Your task to perform on an android device: Set an alarm for 2pm Image 0: 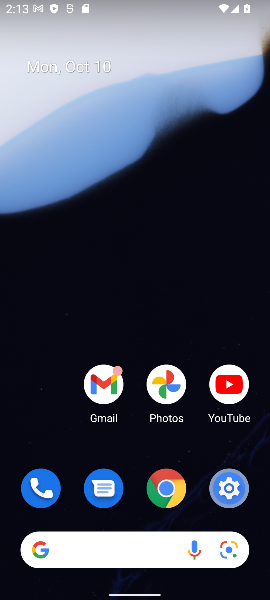
Step 0: drag from (145, 526) to (135, 48)
Your task to perform on an android device: Set an alarm for 2pm Image 1: 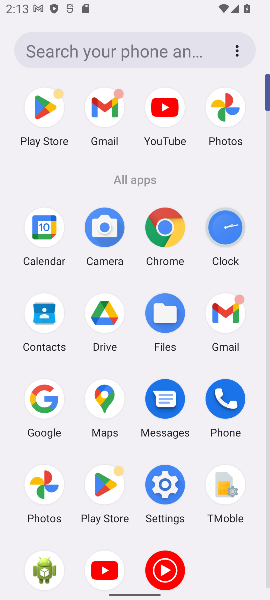
Step 1: click (225, 236)
Your task to perform on an android device: Set an alarm for 2pm Image 2: 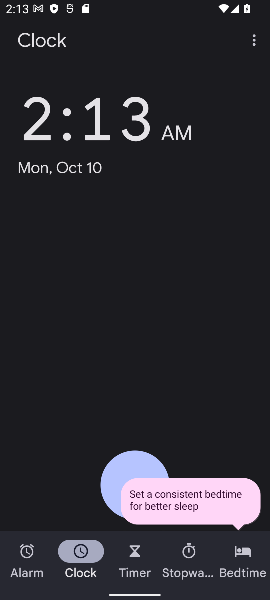
Step 2: click (22, 566)
Your task to perform on an android device: Set an alarm for 2pm Image 3: 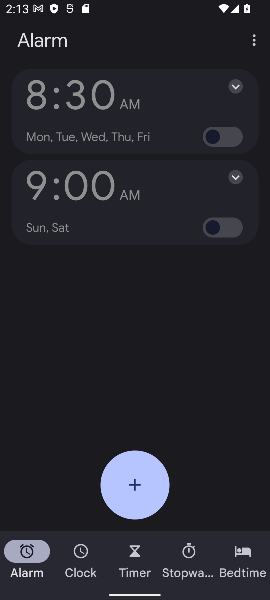
Step 3: click (145, 482)
Your task to perform on an android device: Set an alarm for 2pm Image 4: 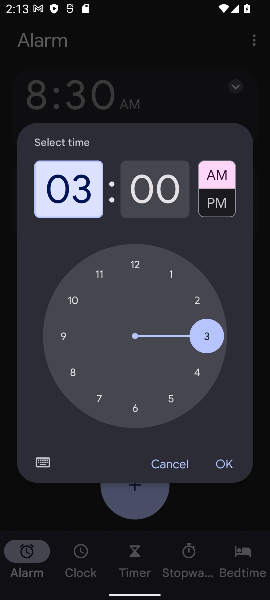
Step 4: click (198, 305)
Your task to perform on an android device: Set an alarm for 2pm Image 5: 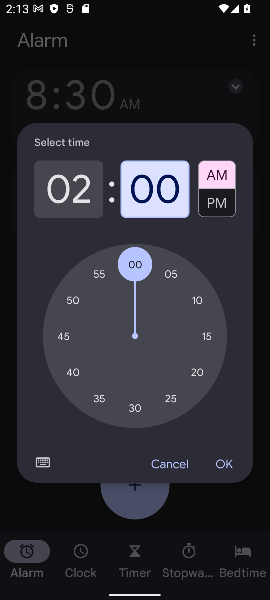
Step 5: click (208, 208)
Your task to perform on an android device: Set an alarm for 2pm Image 6: 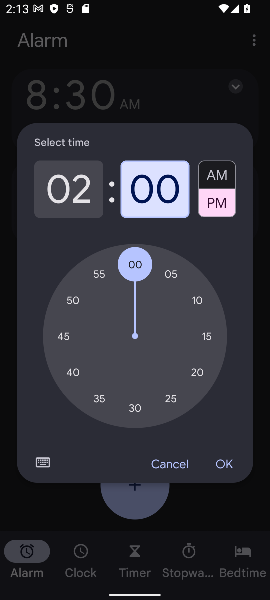
Step 6: click (229, 468)
Your task to perform on an android device: Set an alarm for 2pm Image 7: 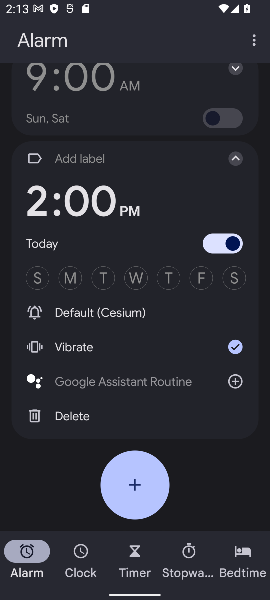
Step 7: task complete